Your task to perform on an android device: turn smart compose on in the gmail app Image 0: 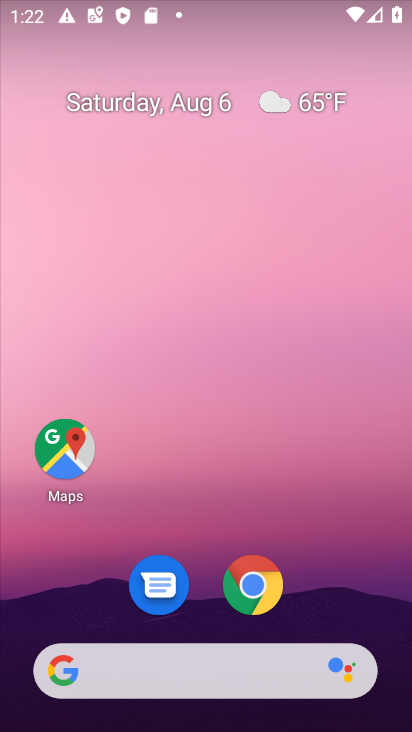
Step 0: drag from (214, 498) to (247, 0)
Your task to perform on an android device: turn smart compose on in the gmail app Image 1: 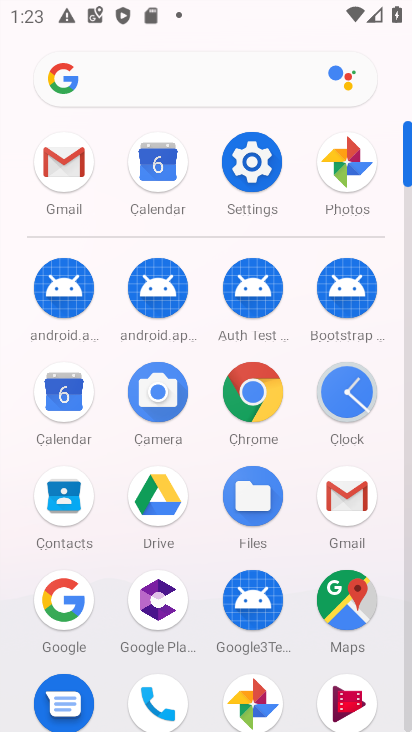
Step 1: click (65, 171)
Your task to perform on an android device: turn smart compose on in the gmail app Image 2: 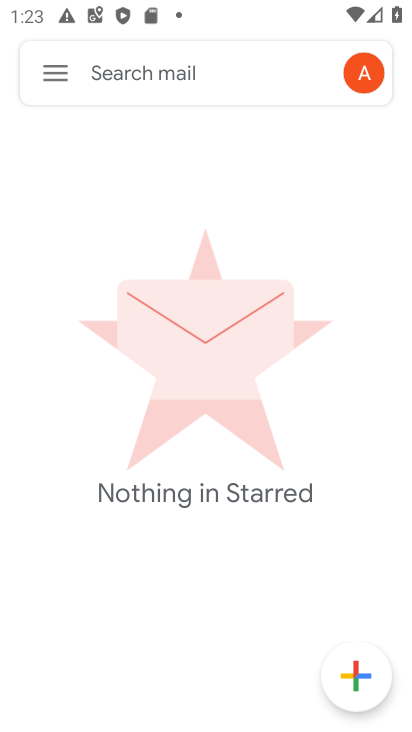
Step 2: click (62, 71)
Your task to perform on an android device: turn smart compose on in the gmail app Image 3: 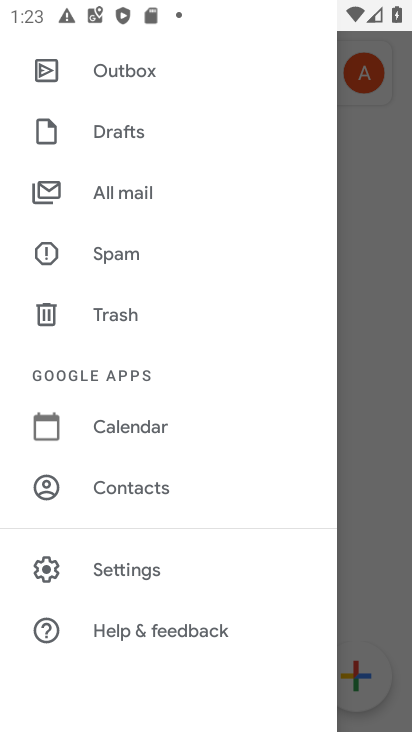
Step 3: click (157, 567)
Your task to perform on an android device: turn smart compose on in the gmail app Image 4: 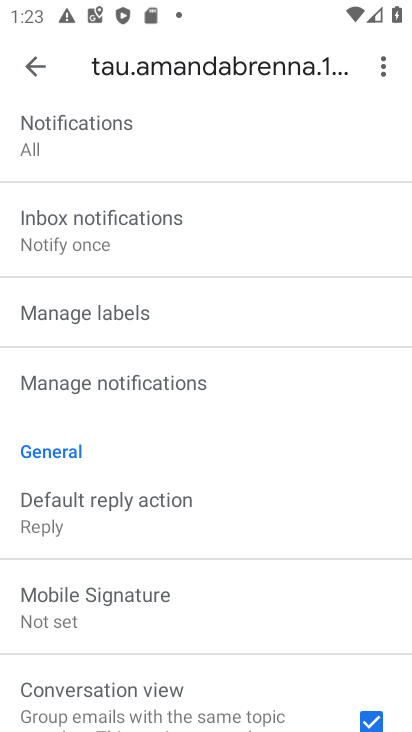
Step 4: task complete